Your task to perform on an android device: see creations saved in the google photos Image 0: 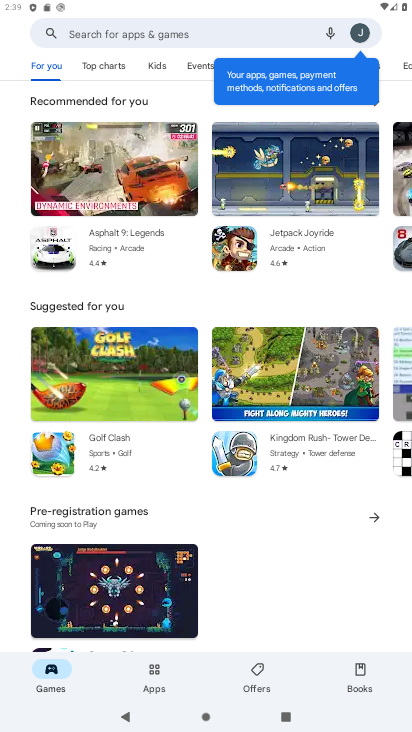
Step 0: press home button
Your task to perform on an android device: see creations saved in the google photos Image 1: 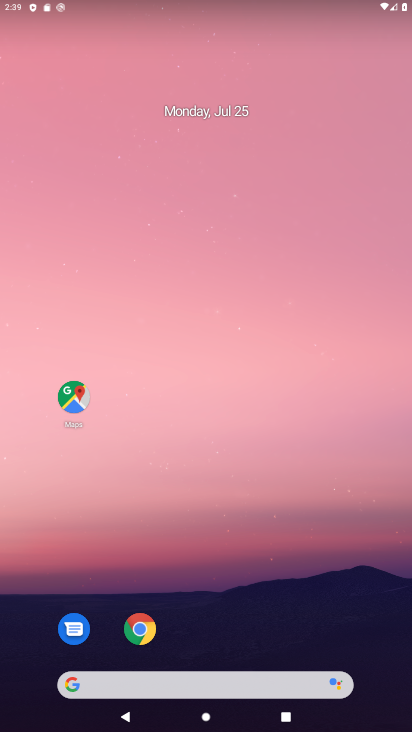
Step 1: drag from (188, 651) to (230, 0)
Your task to perform on an android device: see creations saved in the google photos Image 2: 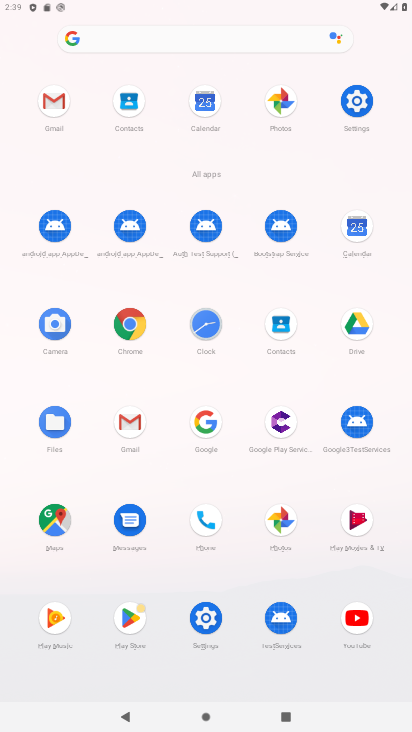
Step 2: click (276, 103)
Your task to perform on an android device: see creations saved in the google photos Image 3: 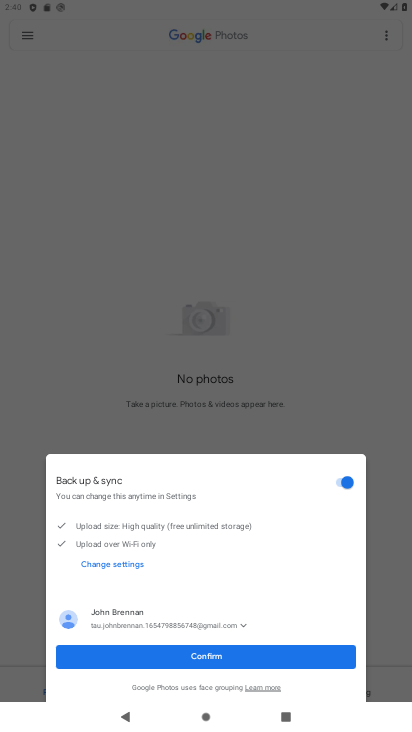
Step 3: click (209, 652)
Your task to perform on an android device: see creations saved in the google photos Image 4: 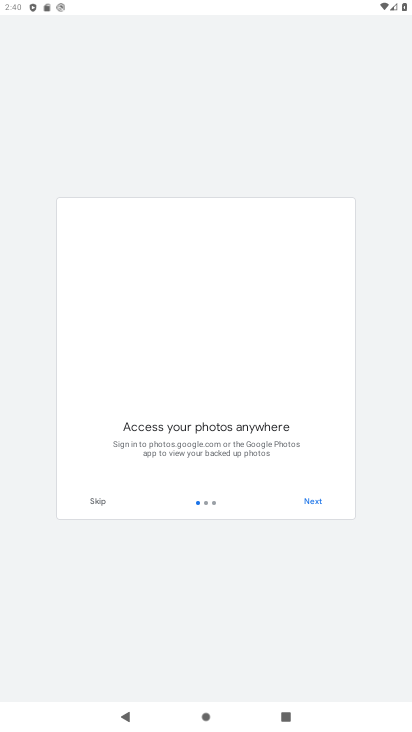
Step 4: click (83, 504)
Your task to perform on an android device: see creations saved in the google photos Image 5: 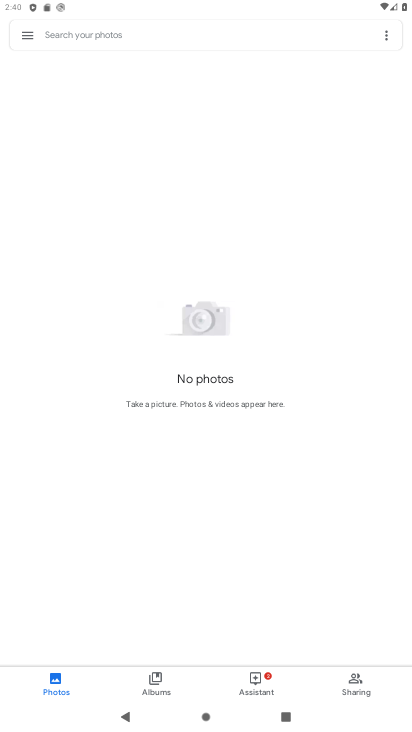
Step 5: click (100, 35)
Your task to perform on an android device: see creations saved in the google photos Image 6: 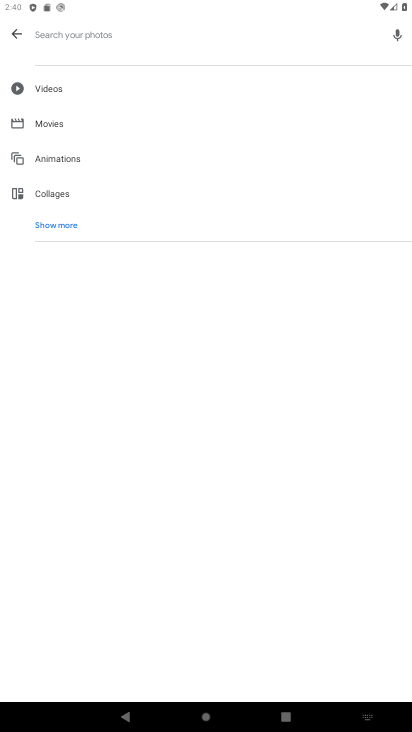
Step 6: click (49, 220)
Your task to perform on an android device: see creations saved in the google photos Image 7: 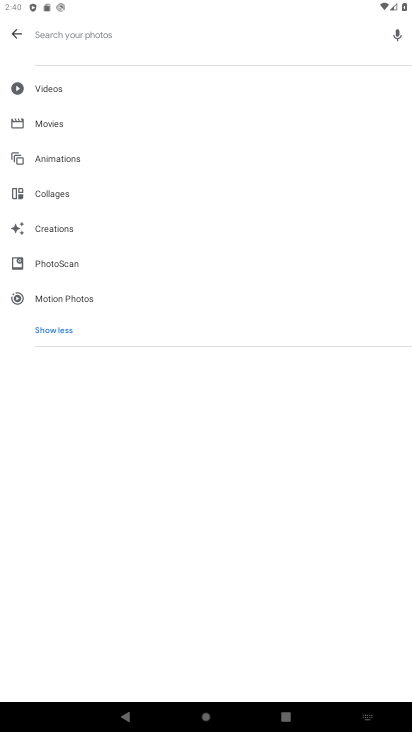
Step 7: click (51, 232)
Your task to perform on an android device: see creations saved in the google photos Image 8: 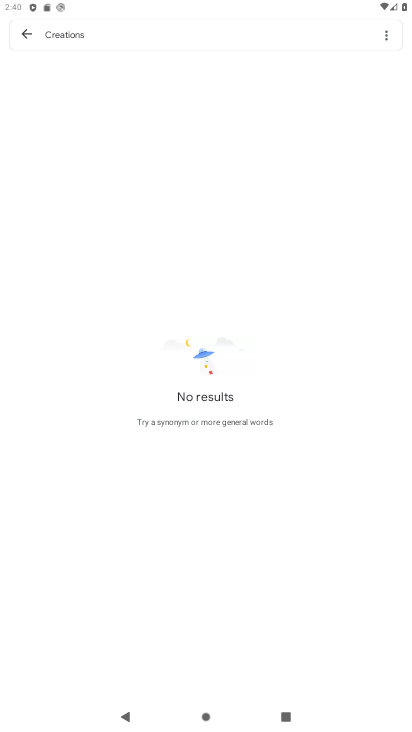
Step 8: task complete